Your task to perform on an android device: Open network settings Image 0: 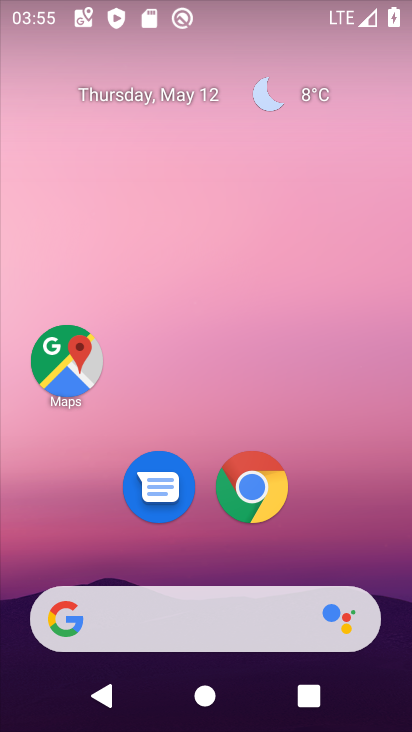
Step 0: drag from (348, 481) to (326, 58)
Your task to perform on an android device: Open network settings Image 1: 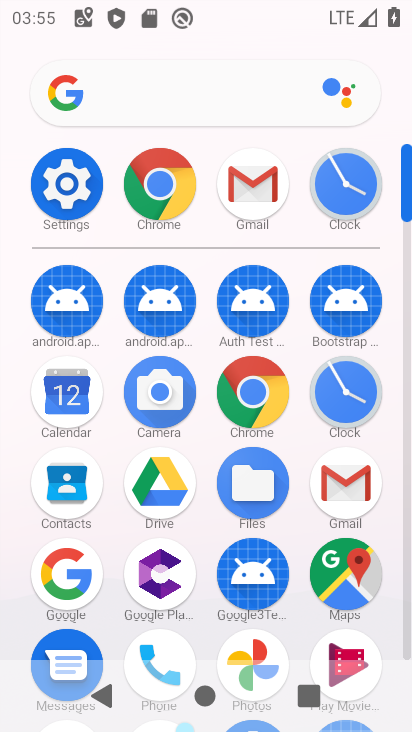
Step 1: click (63, 172)
Your task to perform on an android device: Open network settings Image 2: 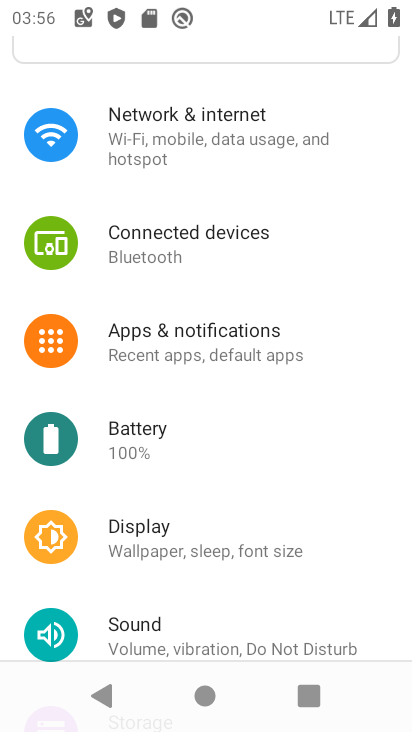
Step 2: click (123, 131)
Your task to perform on an android device: Open network settings Image 3: 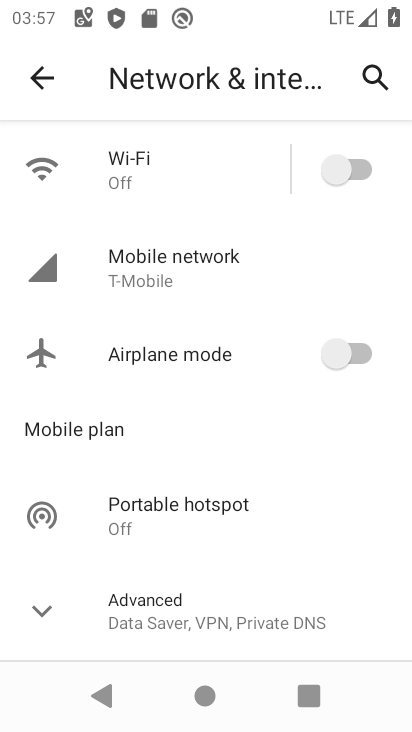
Step 3: task complete